Your task to perform on an android device: Toggle the flashlight Image 0: 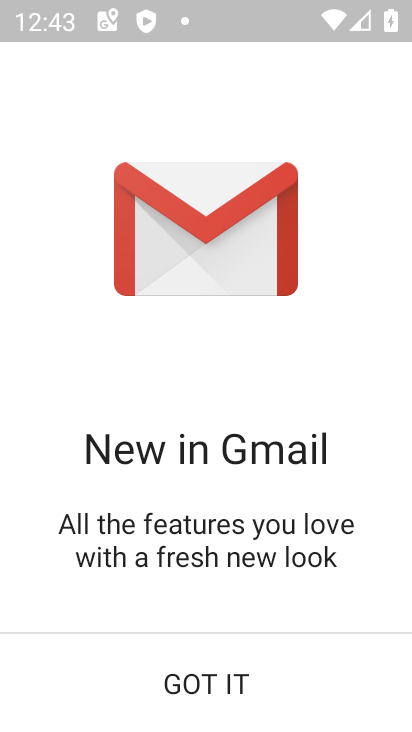
Step 0: press home button
Your task to perform on an android device: Toggle the flashlight Image 1: 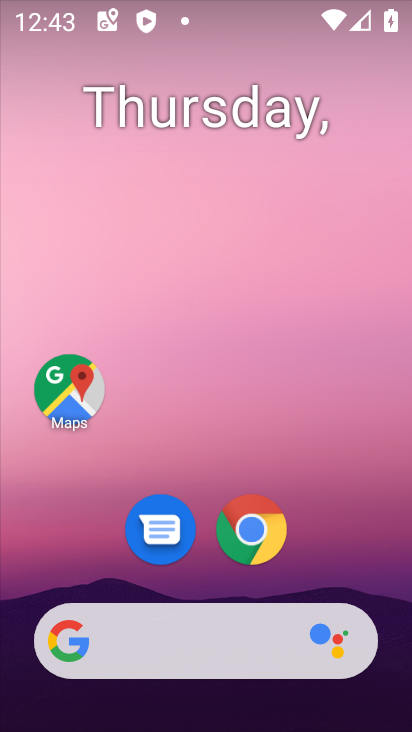
Step 1: drag from (232, 721) to (242, 148)
Your task to perform on an android device: Toggle the flashlight Image 2: 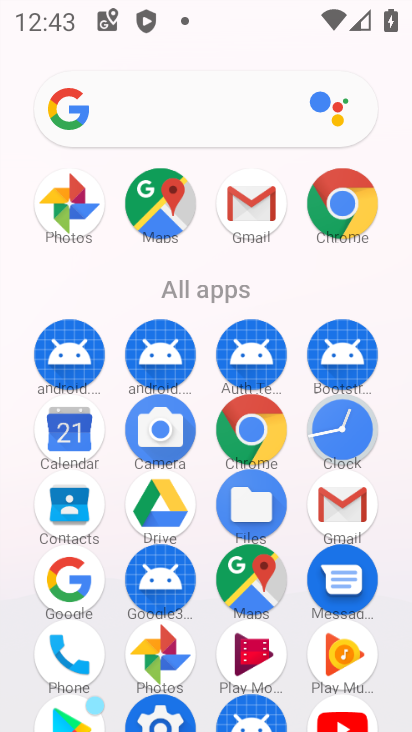
Step 2: drag from (210, 680) to (204, 203)
Your task to perform on an android device: Toggle the flashlight Image 3: 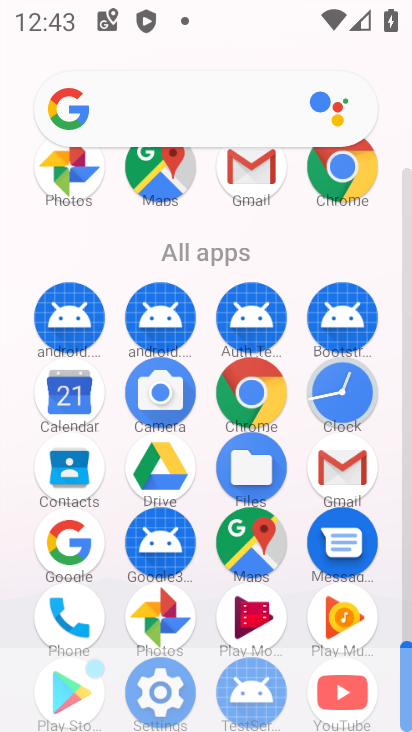
Step 3: click (158, 693)
Your task to perform on an android device: Toggle the flashlight Image 4: 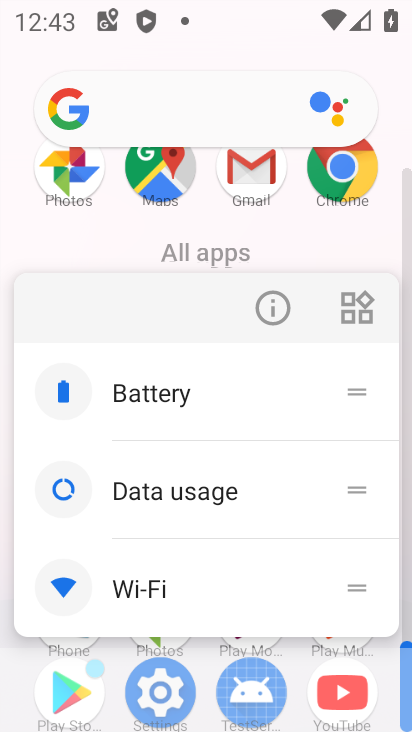
Step 4: click (156, 691)
Your task to perform on an android device: Toggle the flashlight Image 5: 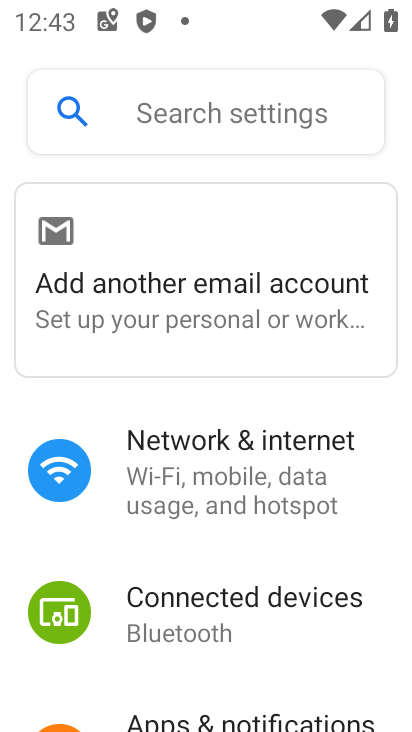
Step 5: task complete